Your task to perform on an android device: turn on airplane mode Image 0: 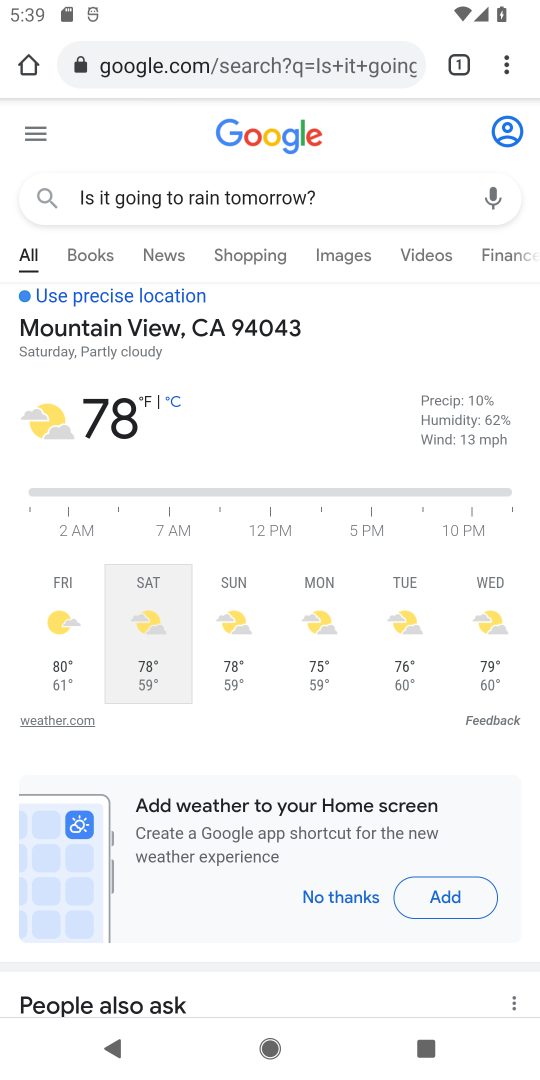
Step 0: press home button
Your task to perform on an android device: turn on airplane mode Image 1: 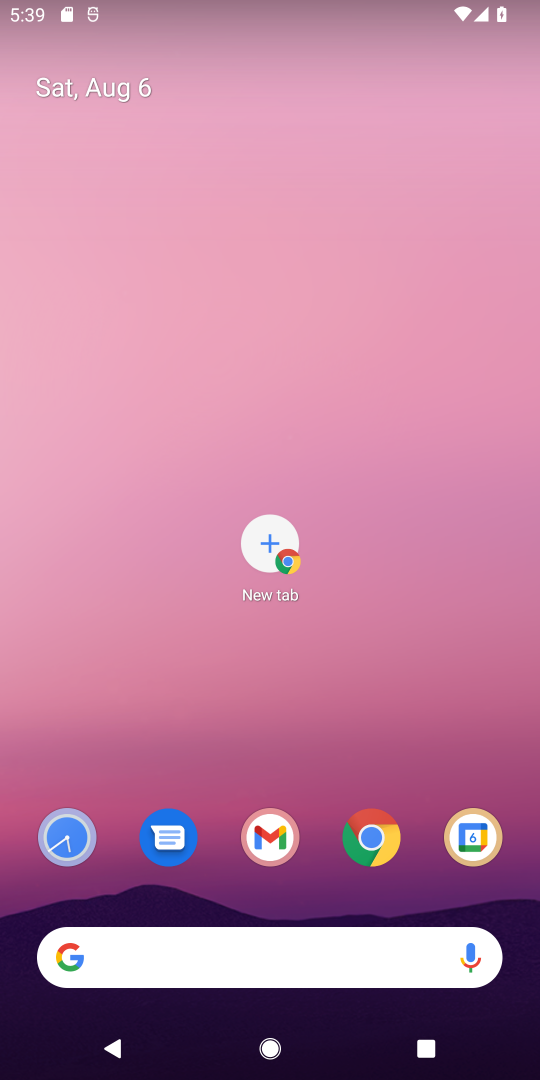
Step 1: task complete